Your task to perform on an android device: Go to CNN.com Image 0: 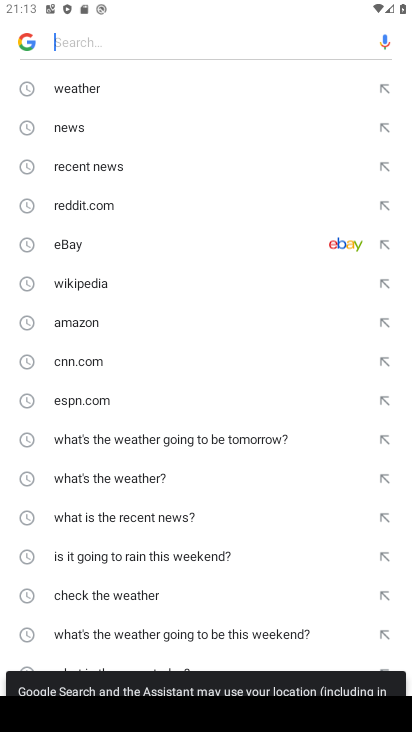
Step 0: press home button
Your task to perform on an android device: Go to CNN.com Image 1: 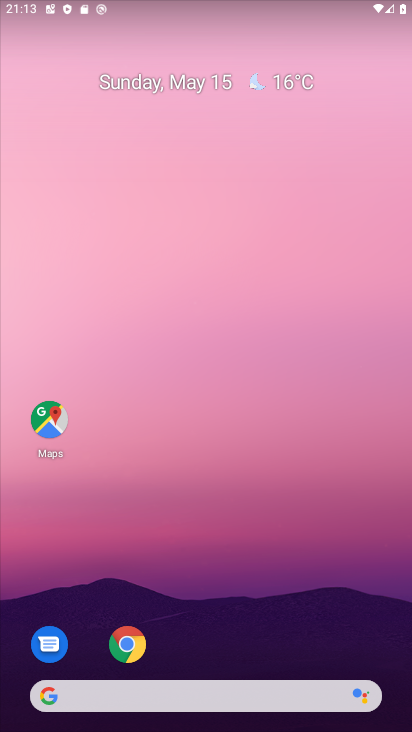
Step 1: click (133, 635)
Your task to perform on an android device: Go to CNN.com Image 2: 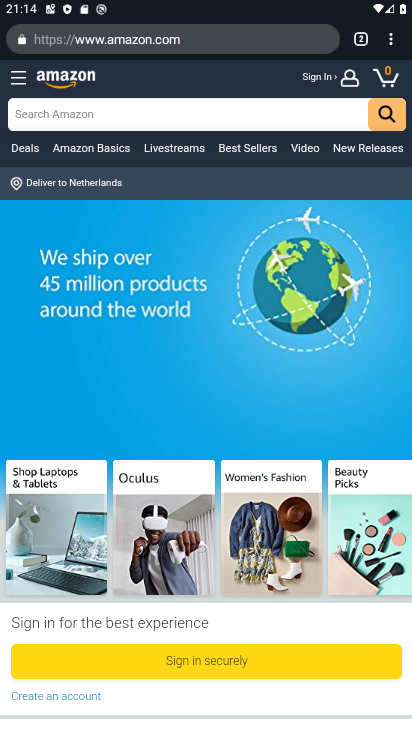
Step 2: click (360, 41)
Your task to perform on an android device: Go to CNN.com Image 3: 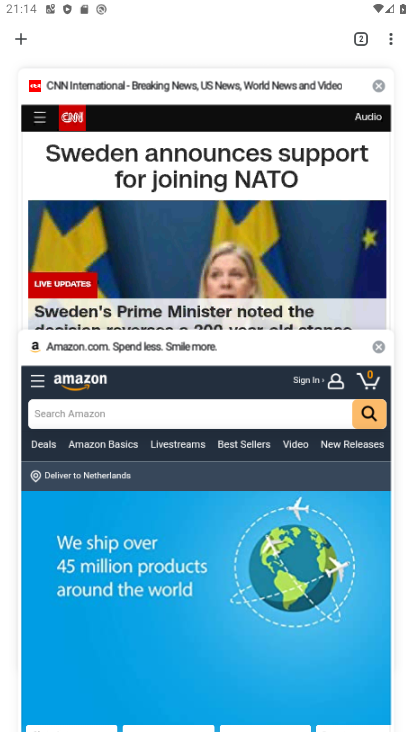
Step 3: click (48, 115)
Your task to perform on an android device: Go to CNN.com Image 4: 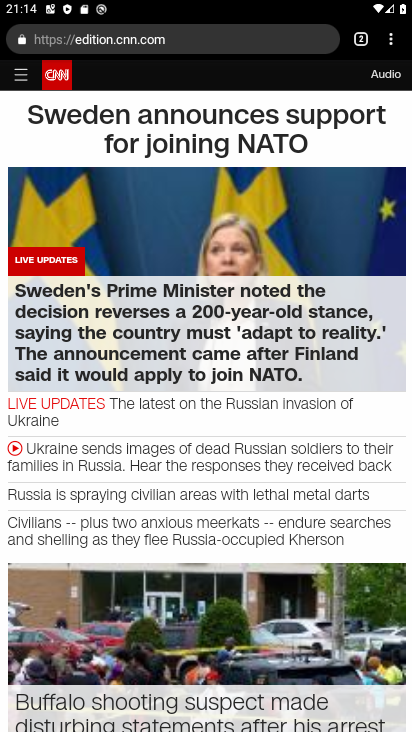
Step 4: task complete